Your task to perform on an android device: Go to network settings Image 0: 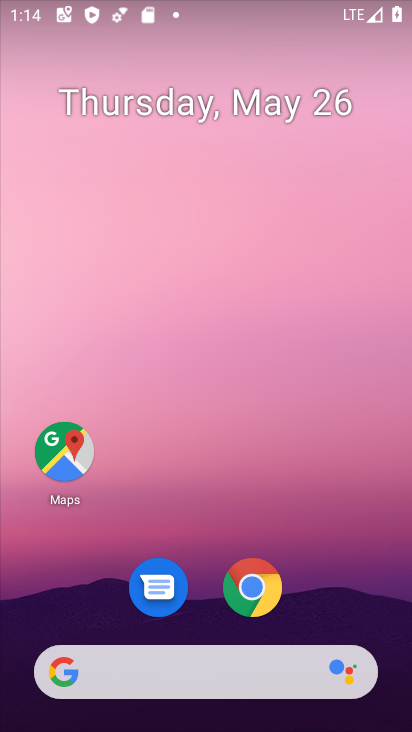
Step 0: drag from (356, 539) to (354, 111)
Your task to perform on an android device: Go to network settings Image 1: 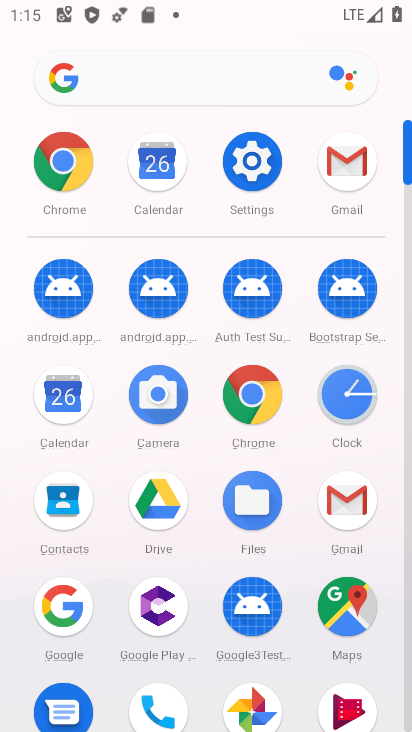
Step 1: click (256, 180)
Your task to perform on an android device: Go to network settings Image 2: 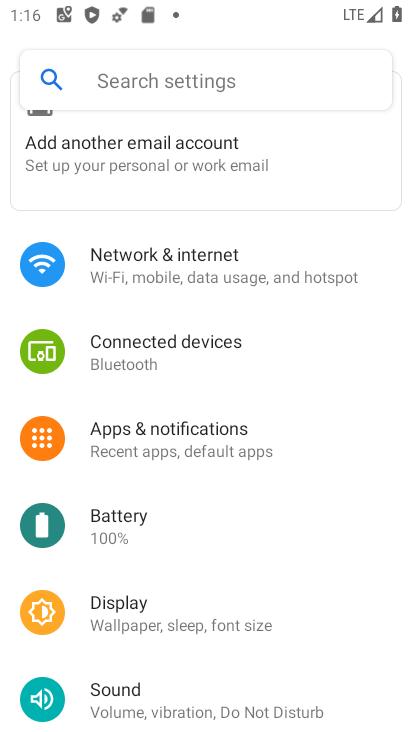
Step 2: click (222, 282)
Your task to perform on an android device: Go to network settings Image 3: 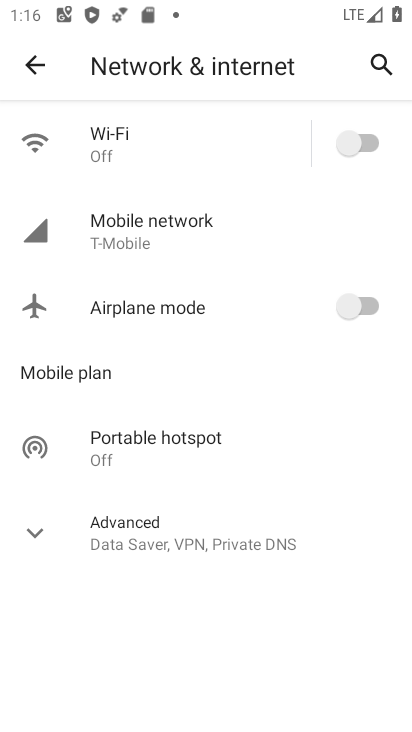
Step 3: task complete